Your task to perform on an android device: make emails show in primary in the gmail app Image 0: 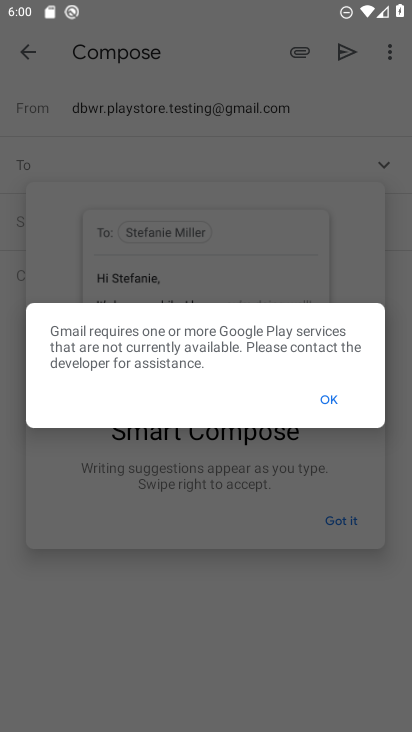
Step 0: press home button
Your task to perform on an android device: make emails show in primary in the gmail app Image 1: 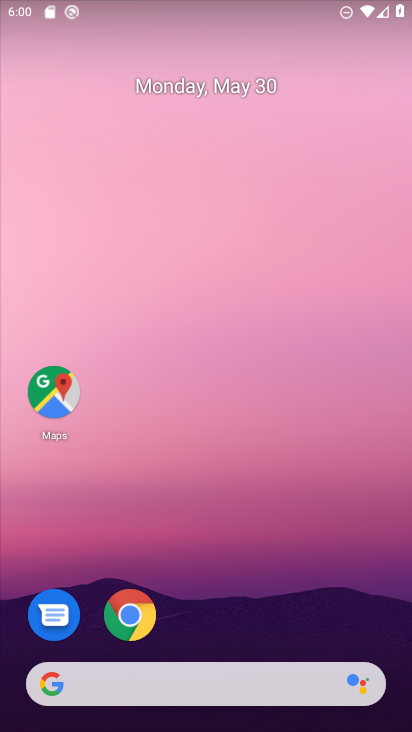
Step 1: drag from (180, 640) to (282, 89)
Your task to perform on an android device: make emails show in primary in the gmail app Image 2: 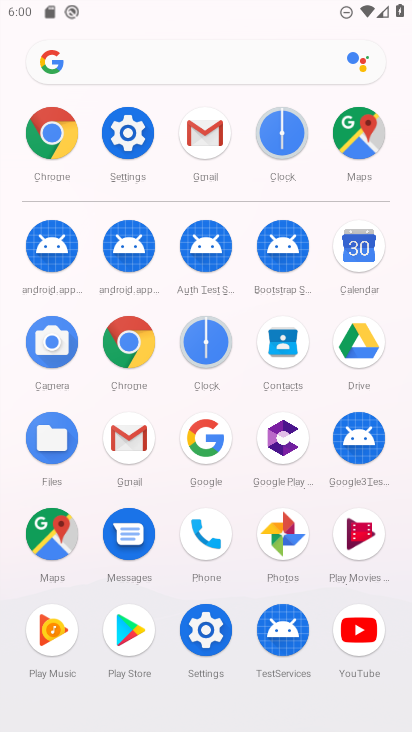
Step 2: click (203, 159)
Your task to perform on an android device: make emails show in primary in the gmail app Image 3: 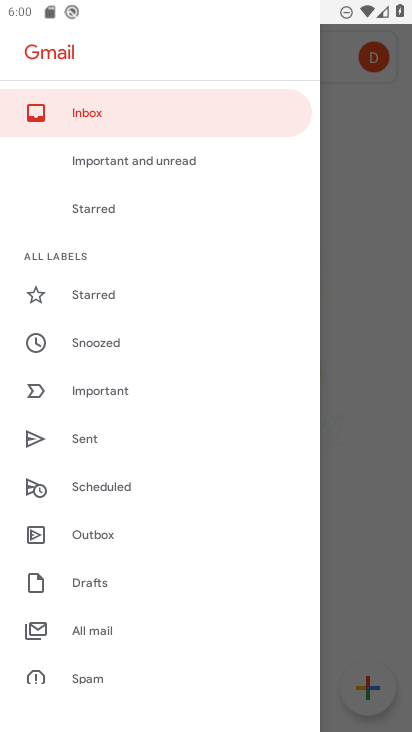
Step 3: task complete